Your task to perform on an android device: toggle priority inbox in the gmail app Image 0: 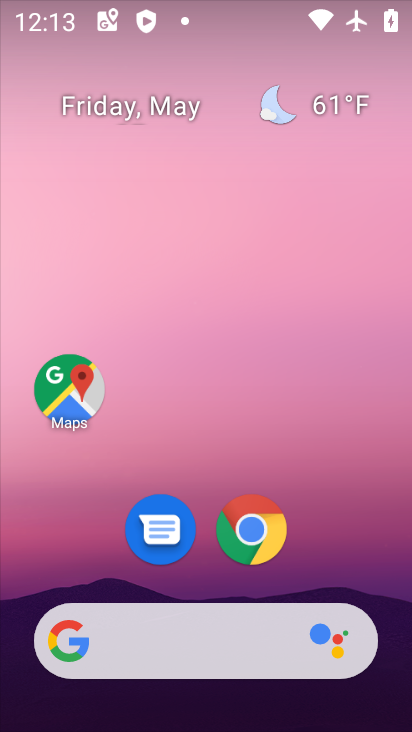
Step 0: drag from (359, 567) to (323, 190)
Your task to perform on an android device: toggle priority inbox in the gmail app Image 1: 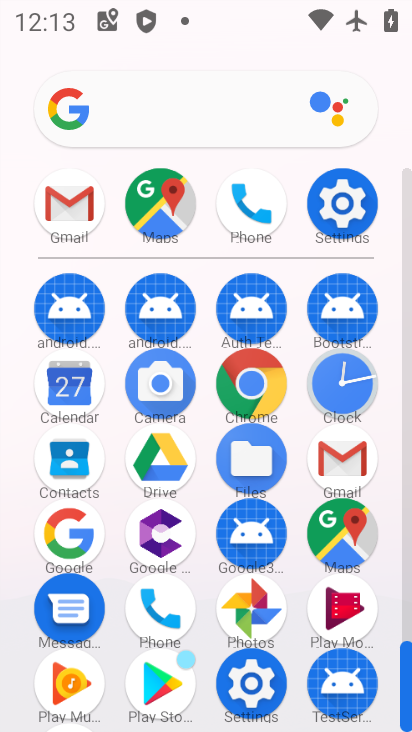
Step 1: click (70, 203)
Your task to perform on an android device: toggle priority inbox in the gmail app Image 2: 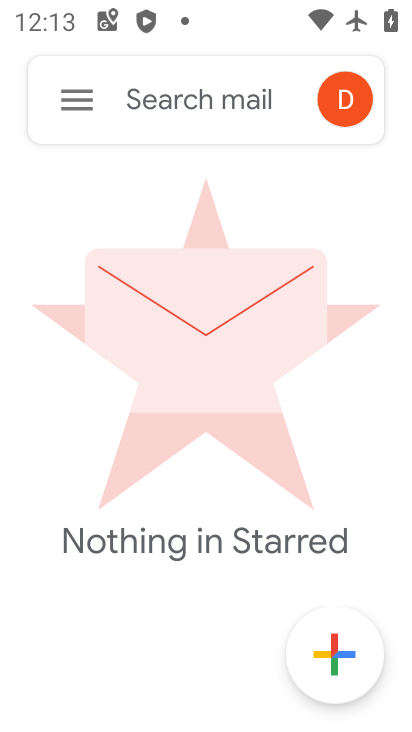
Step 2: click (81, 110)
Your task to perform on an android device: toggle priority inbox in the gmail app Image 3: 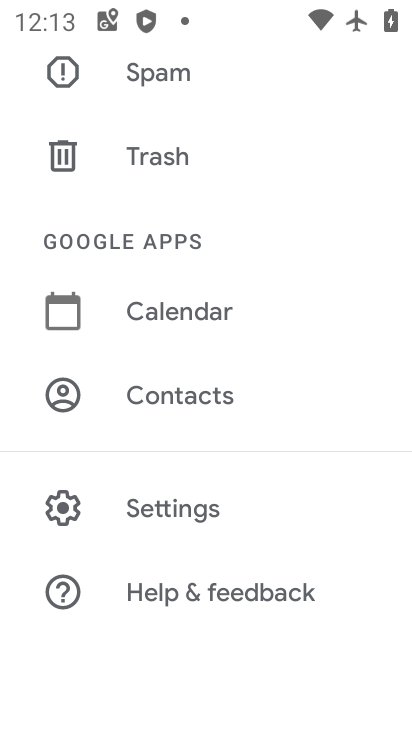
Step 3: click (185, 498)
Your task to perform on an android device: toggle priority inbox in the gmail app Image 4: 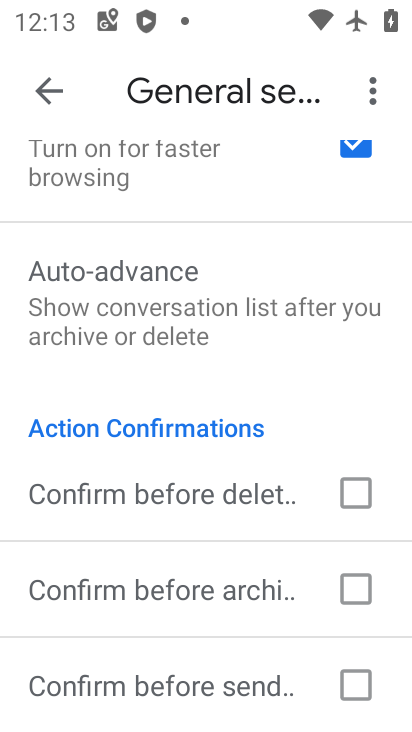
Step 4: task complete